Your task to perform on an android device: change notification settings in the gmail app Image 0: 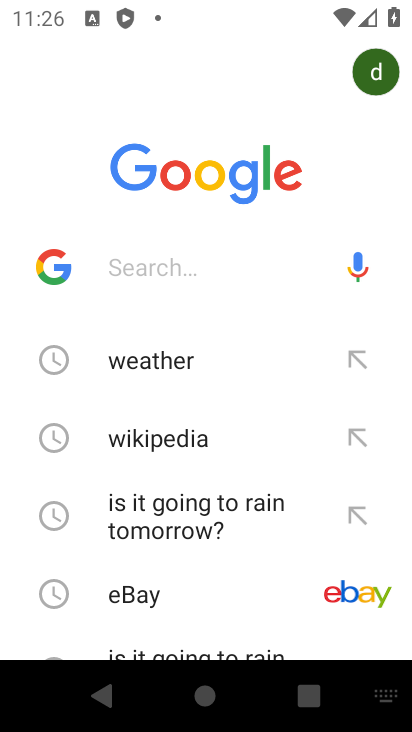
Step 0: press home button
Your task to perform on an android device: change notification settings in the gmail app Image 1: 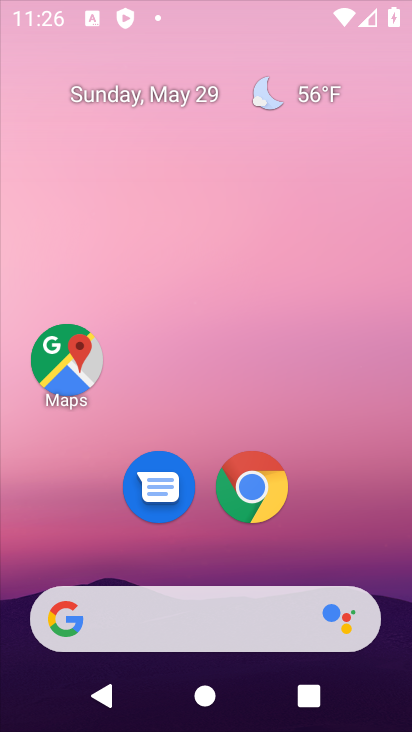
Step 1: drag from (226, 523) to (294, 16)
Your task to perform on an android device: change notification settings in the gmail app Image 2: 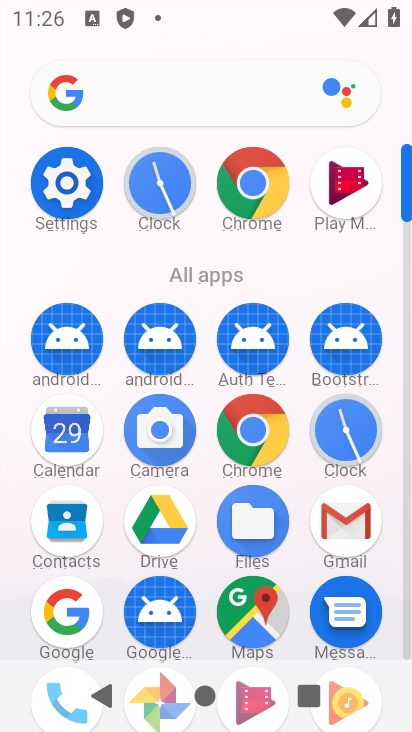
Step 2: click (357, 542)
Your task to perform on an android device: change notification settings in the gmail app Image 3: 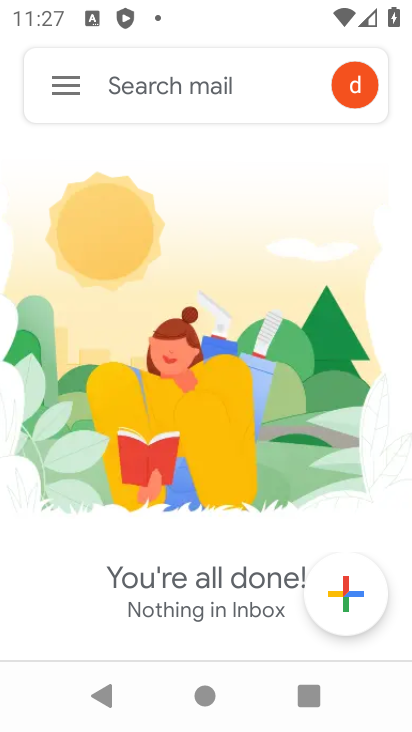
Step 3: click (73, 87)
Your task to perform on an android device: change notification settings in the gmail app Image 4: 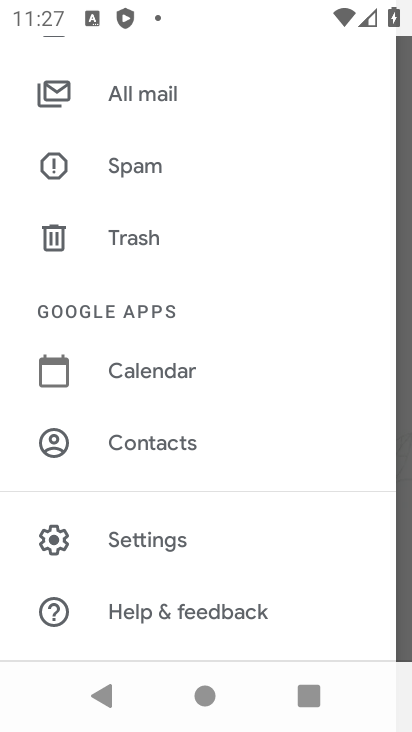
Step 4: click (170, 537)
Your task to perform on an android device: change notification settings in the gmail app Image 5: 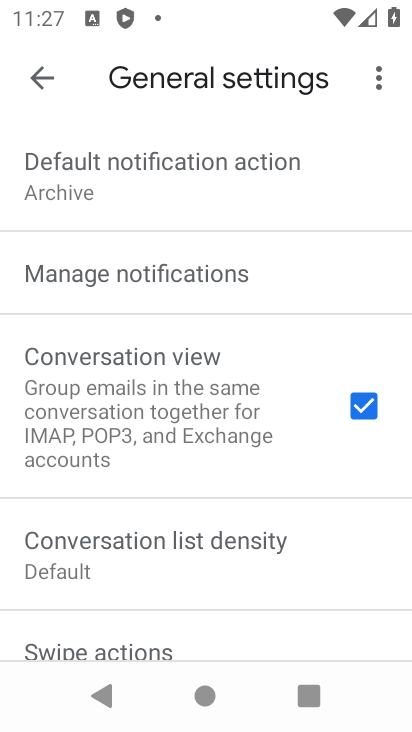
Step 5: click (228, 285)
Your task to perform on an android device: change notification settings in the gmail app Image 6: 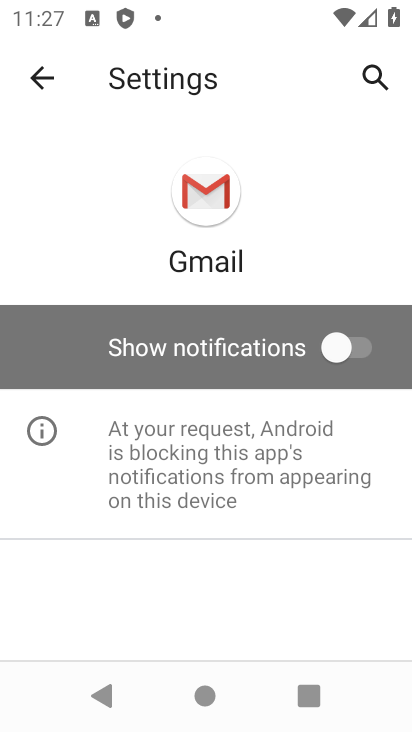
Step 6: click (348, 339)
Your task to perform on an android device: change notification settings in the gmail app Image 7: 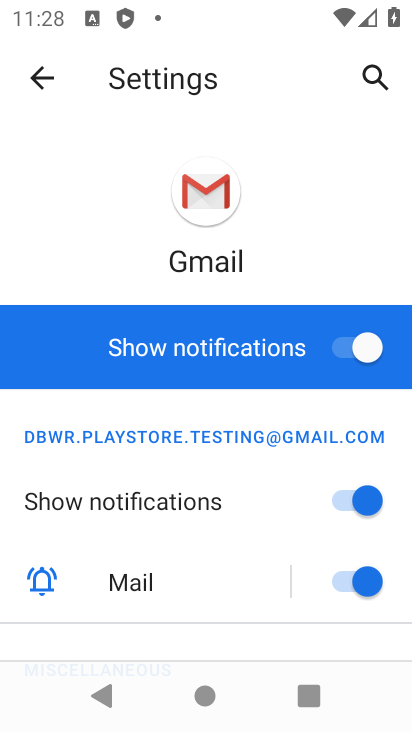
Step 7: task complete